Your task to perform on an android device: turn on sleep mode Image 0: 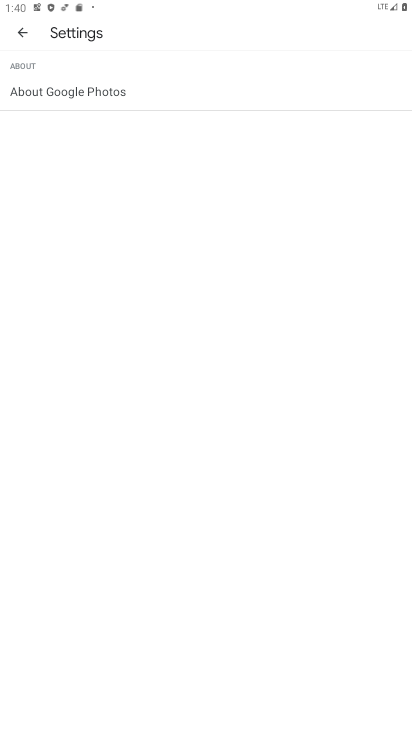
Step 0: press home button
Your task to perform on an android device: turn on sleep mode Image 1: 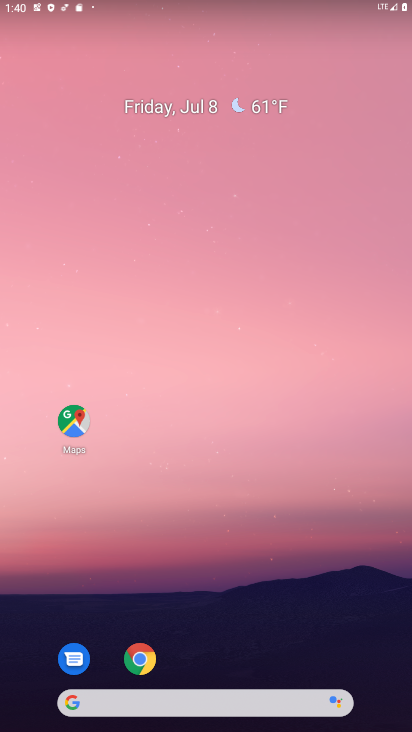
Step 1: drag from (227, 675) to (195, 62)
Your task to perform on an android device: turn on sleep mode Image 2: 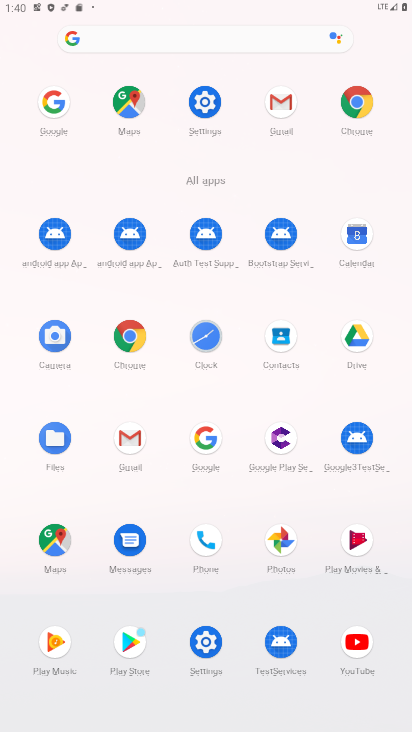
Step 2: click (204, 113)
Your task to perform on an android device: turn on sleep mode Image 3: 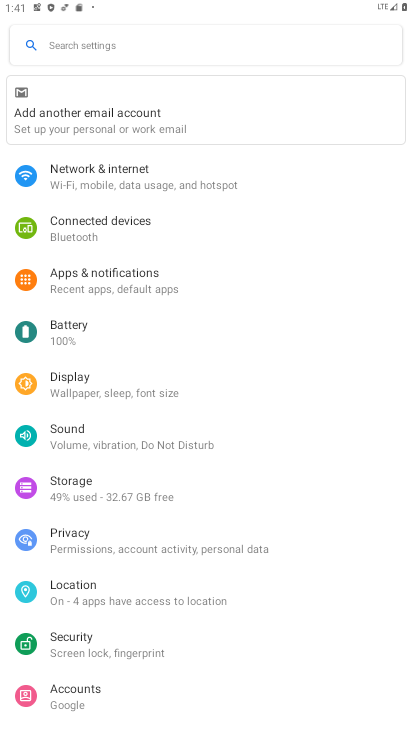
Step 3: task complete